Your task to perform on an android device: Open the map Image 0: 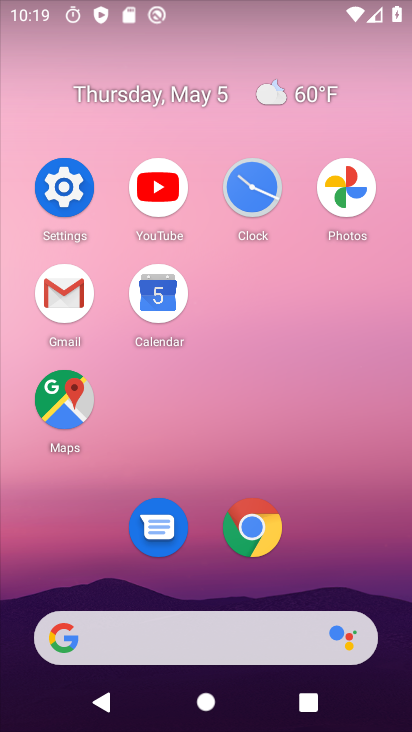
Step 0: click (53, 393)
Your task to perform on an android device: Open the map Image 1: 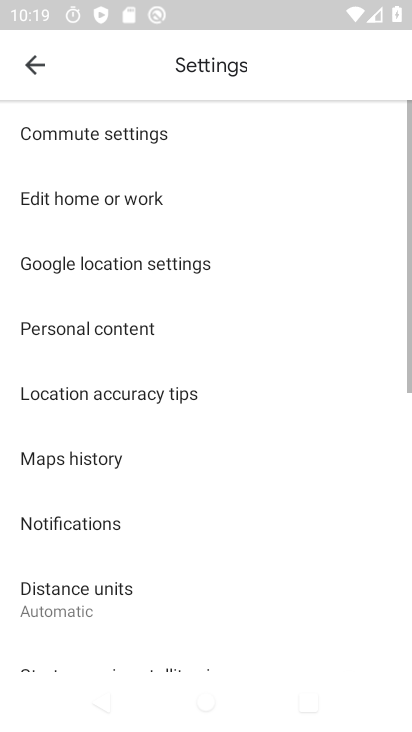
Step 1: task complete